Your task to perform on an android device: Do I have any events today? Image 0: 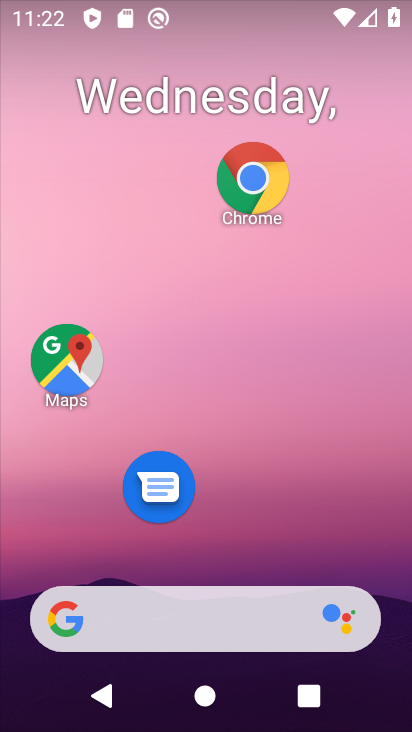
Step 0: drag from (330, 475) to (322, 83)
Your task to perform on an android device: Do I have any events today? Image 1: 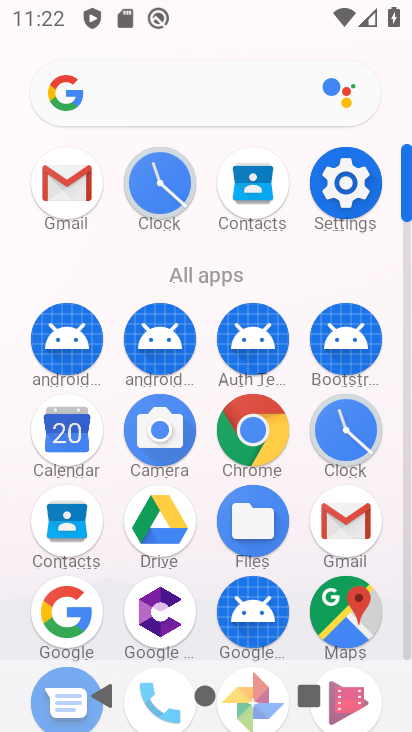
Step 1: click (61, 429)
Your task to perform on an android device: Do I have any events today? Image 2: 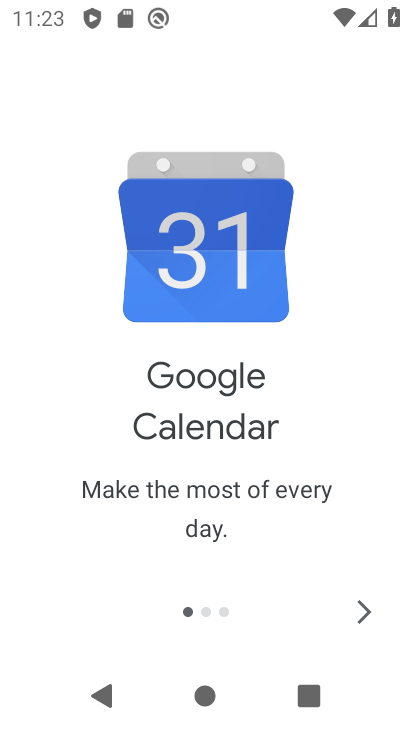
Step 2: click (362, 601)
Your task to perform on an android device: Do I have any events today? Image 3: 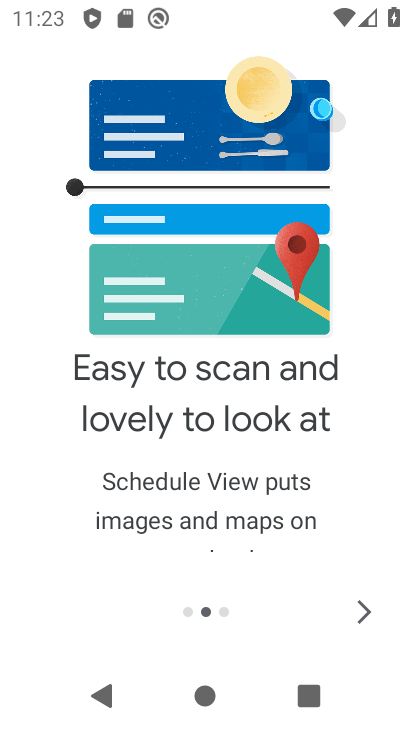
Step 3: click (363, 597)
Your task to perform on an android device: Do I have any events today? Image 4: 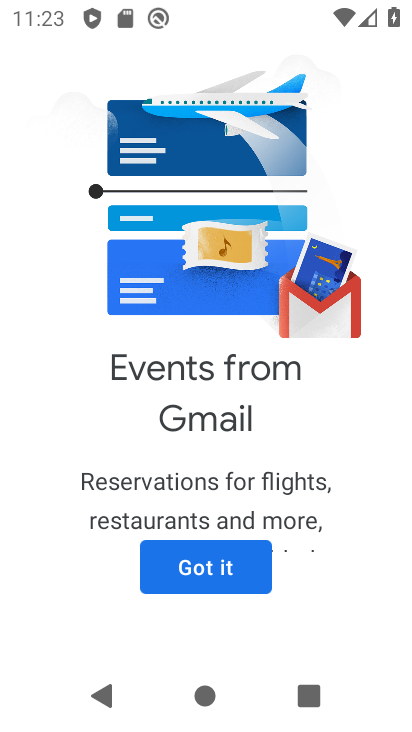
Step 4: click (227, 580)
Your task to perform on an android device: Do I have any events today? Image 5: 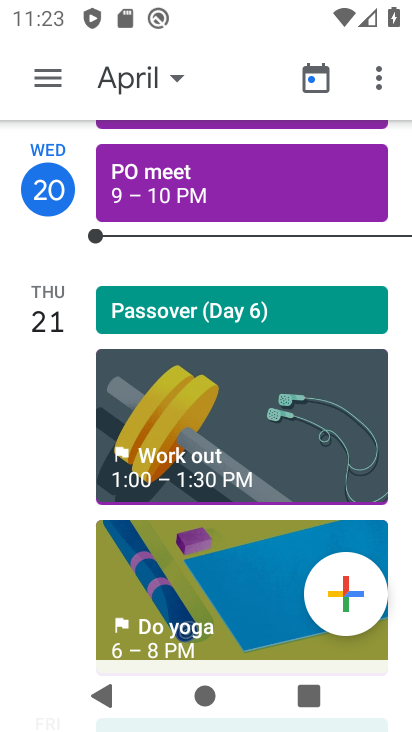
Step 5: click (54, 73)
Your task to perform on an android device: Do I have any events today? Image 6: 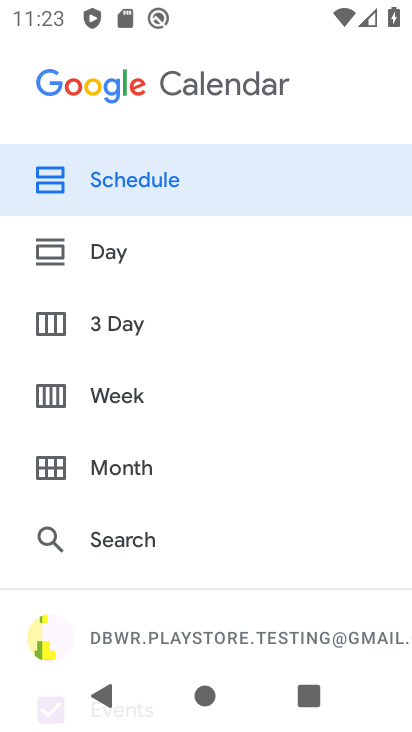
Step 6: drag from (172, 495) to (171, 159)
Your task to perform on an android device: Do I have any events today? Image 7: 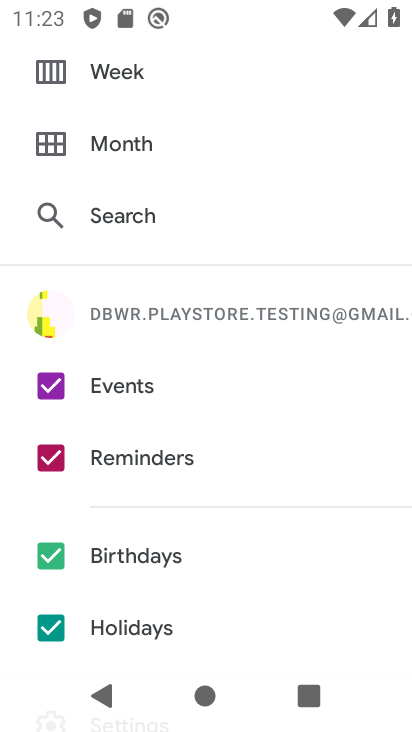
Step 7: click (39, 450)
Your task to perform on an android device: Do I have any events today? Image 8: 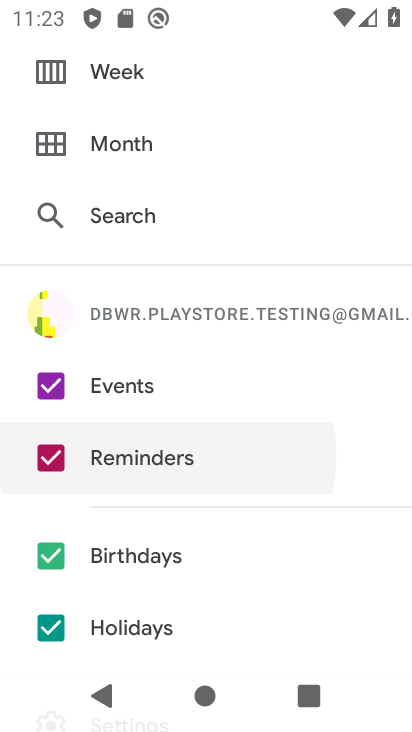
Step 8: click (56, 551)
Your task to perform on an android device: Do I have any events today? Image 9: 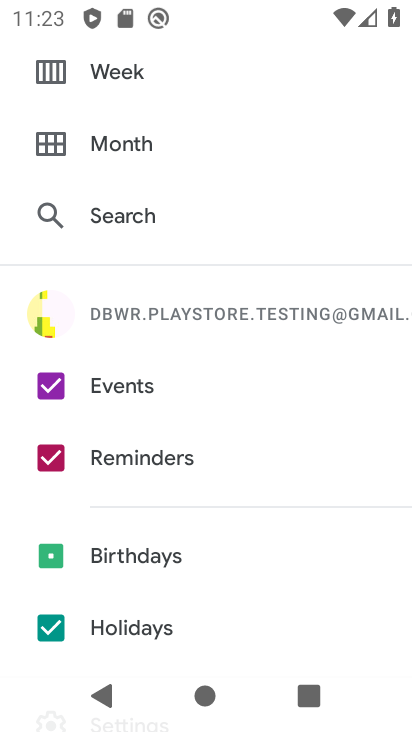
Step 9: click (49, 622)
Your task to perform on an android device: Do I have any events today? Image 10: 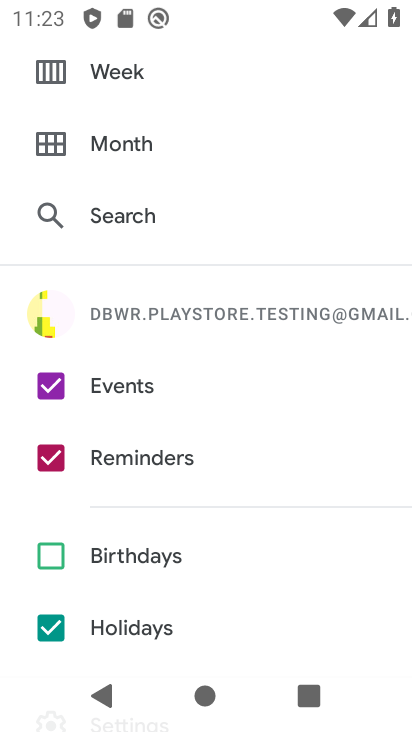
Step 10: click (55, 460)
Your task to perform on an android device: Do I have any events today? Image 11: 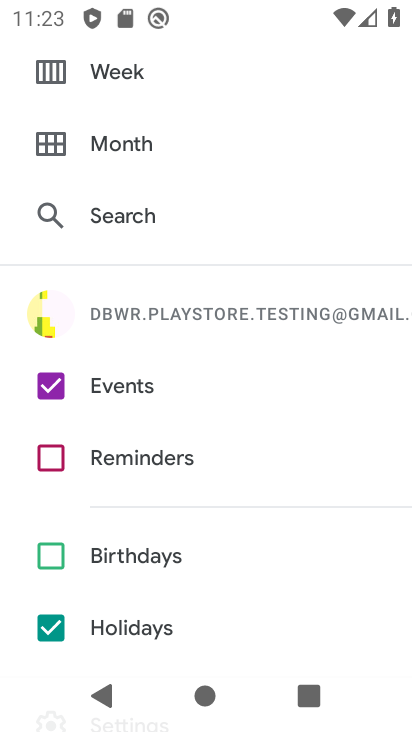
Step 11: click (52, 630)
Your task to perform on an android device: Do I have any events today? Image 12: 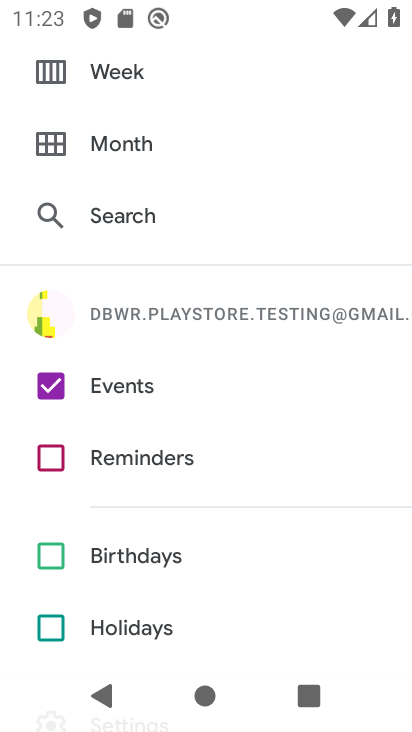
Step 12: drag from (291, 318) to (289, 609)
Your task to perform on an android device: Do I have any events today? Image 13: 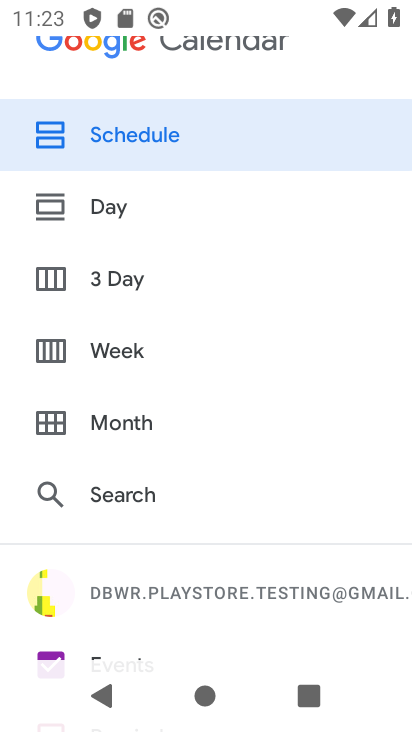
Step 13: click (146, 208)
Your task to perform on an android device: Do I have any events today? Image 14: 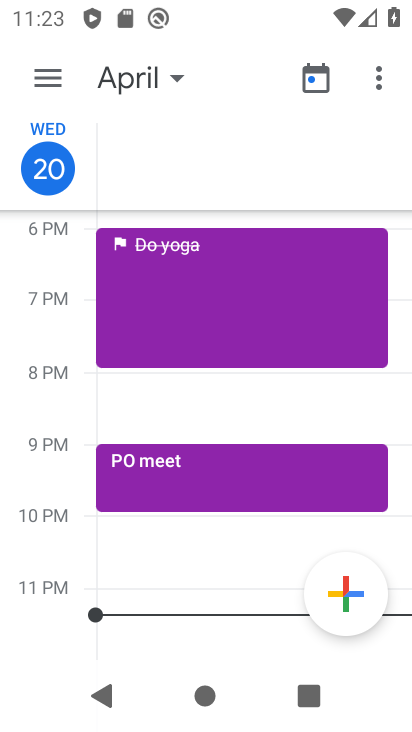
Step 14: click (167, 77)
Your task to perform on an android device: Do I have any events today? Image 15: 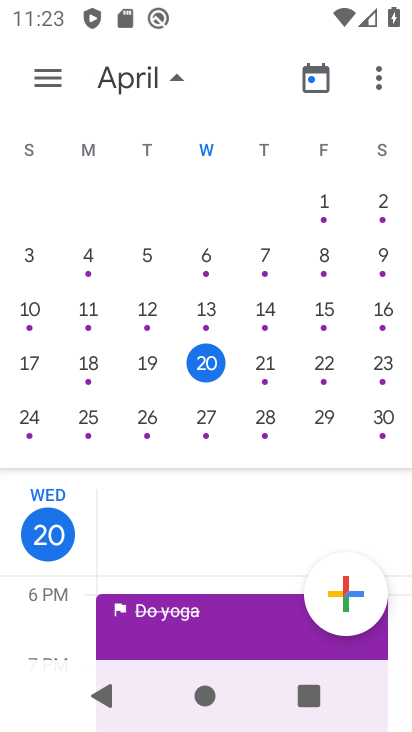
Step 15: click (265, 366)
Your task to perform on an android device: Do I have any events today? Image 16: 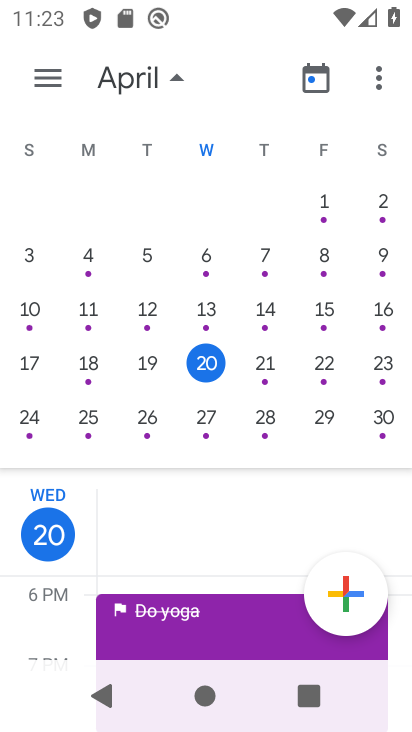
Step 16: click (264, 365)
Your task to perform on an android device: Do I have any events today? Image 17: 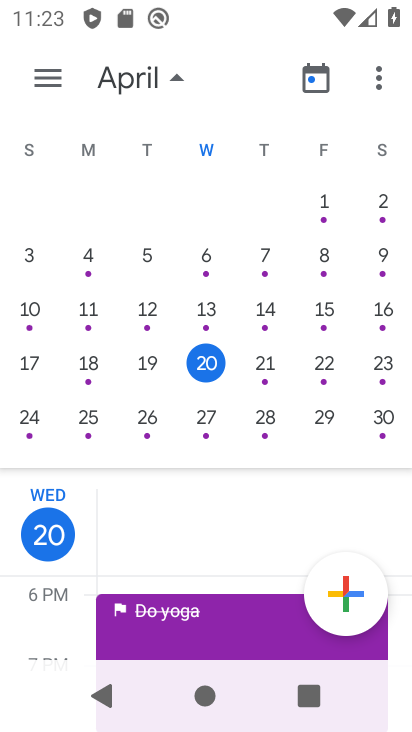
Step 17: click (264, 365)
Your task to perform on an android device: Do I have any events today? Image 18: 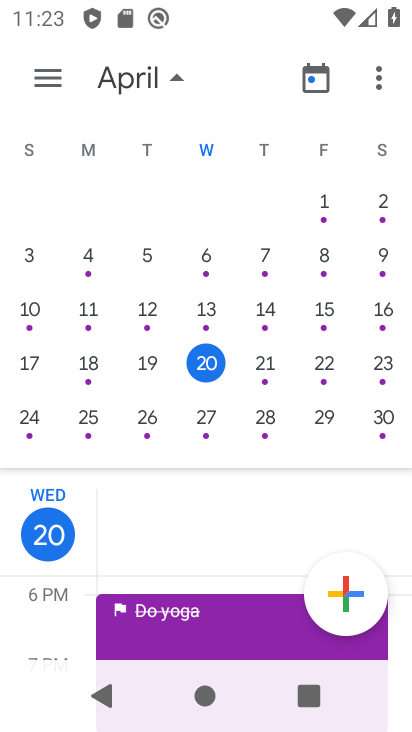
Step 18: click (264, 365)
Your task to perform on an android device: Do I have any events today? Image 19: 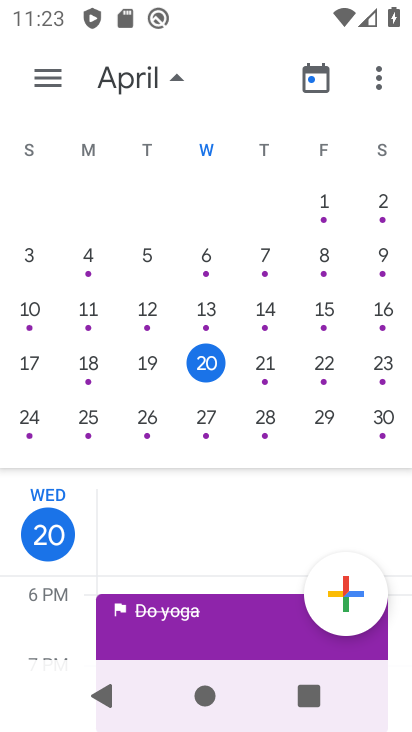
Step 19: click (257, 357)
Your task to perform on an android device: Do I have any events today? Image 20: 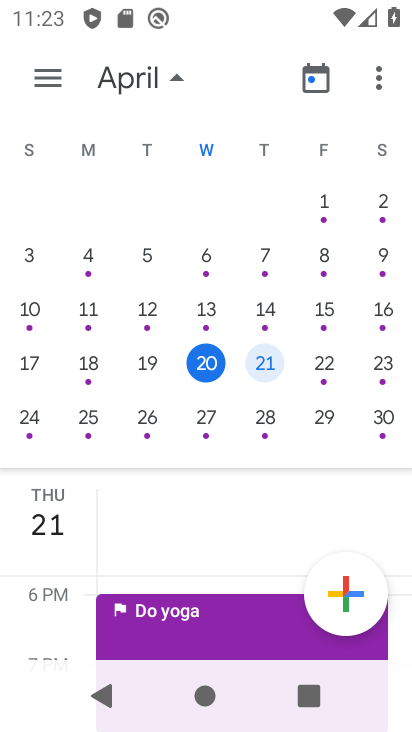
Step 20: task complete